Your task to perform on an android device: Search for seafood restaurants on Google Maps Image 0: 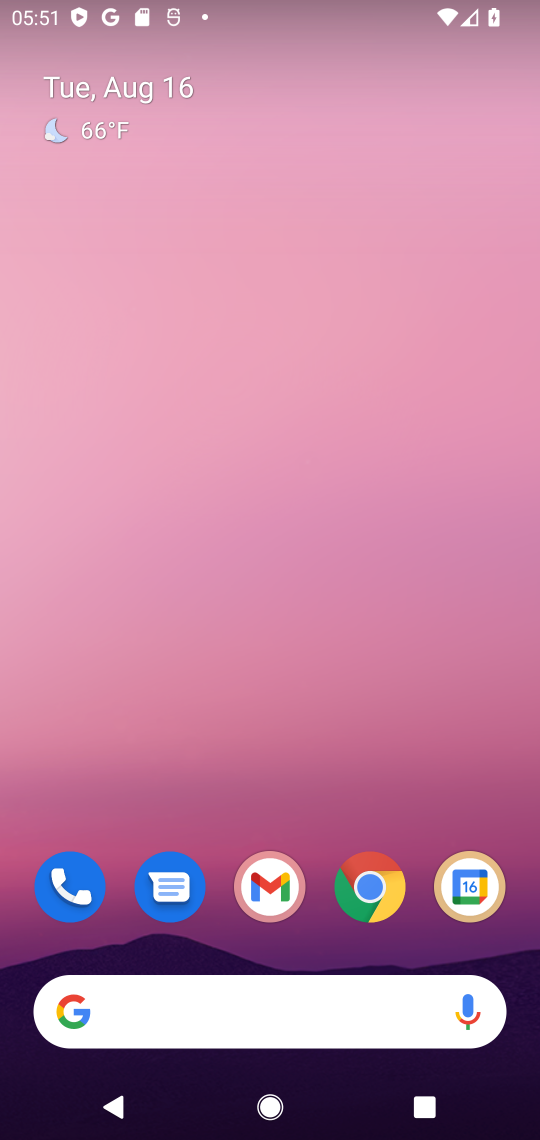
Step 0: drag from (356, 633) to (366, 4)
Your task to perform on an android device: Search for seafood restaurants on Google Maps Image 1: 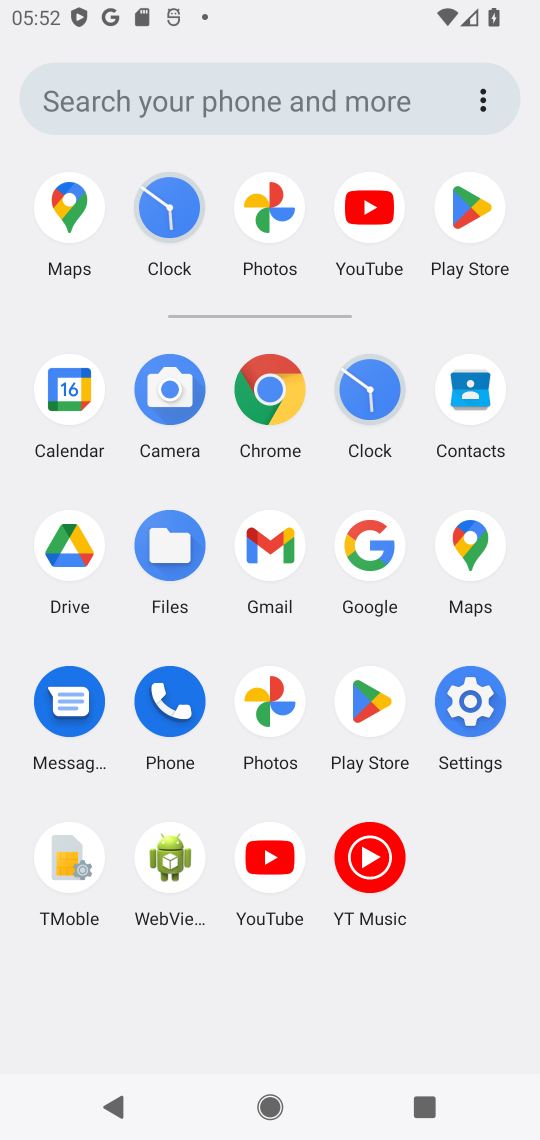
Step 1: click (460, 545)
Your task to perform on an android device: Search for seafood restaurants on Google Maps Image 2: 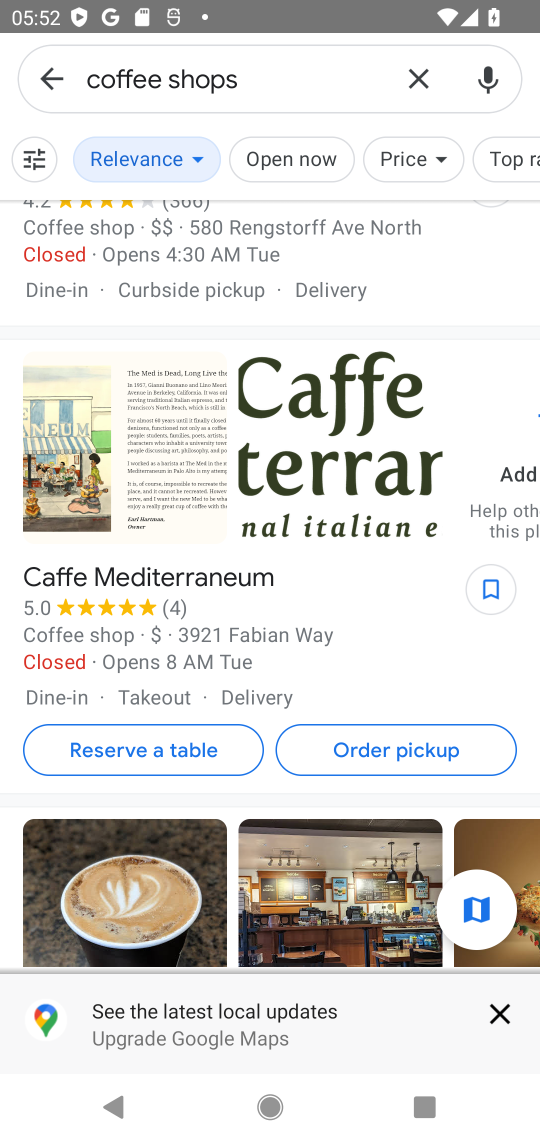
Step 2: click (414, 69)
Your task to perform on an android device: Search for seafood restaurants on Google Maps Image 3: 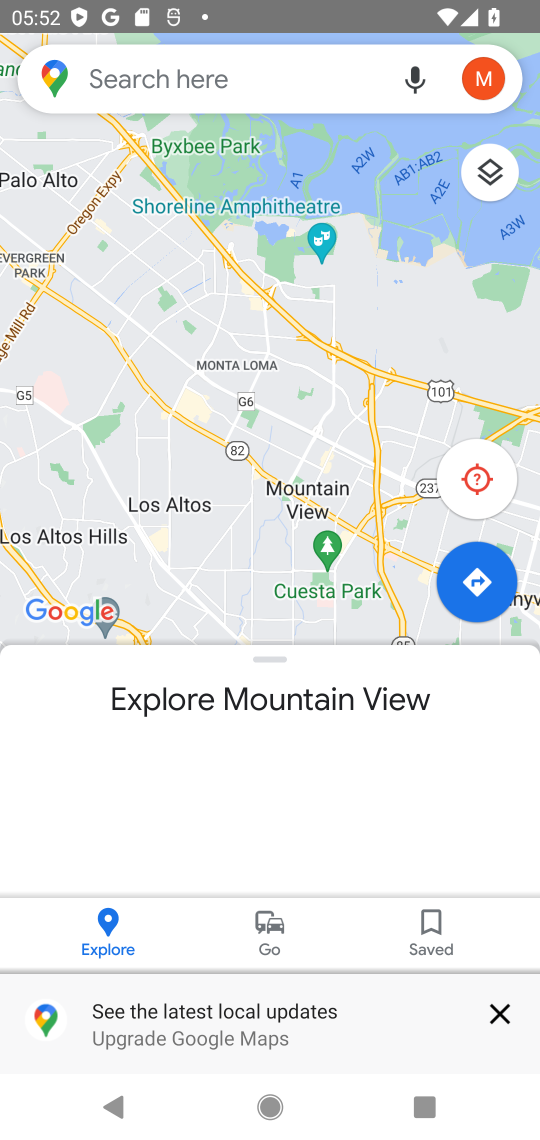
Step 3: click (293, 81)
Your task to perform on an android device: Search for seafood restaurants on Google Maps Image 4: 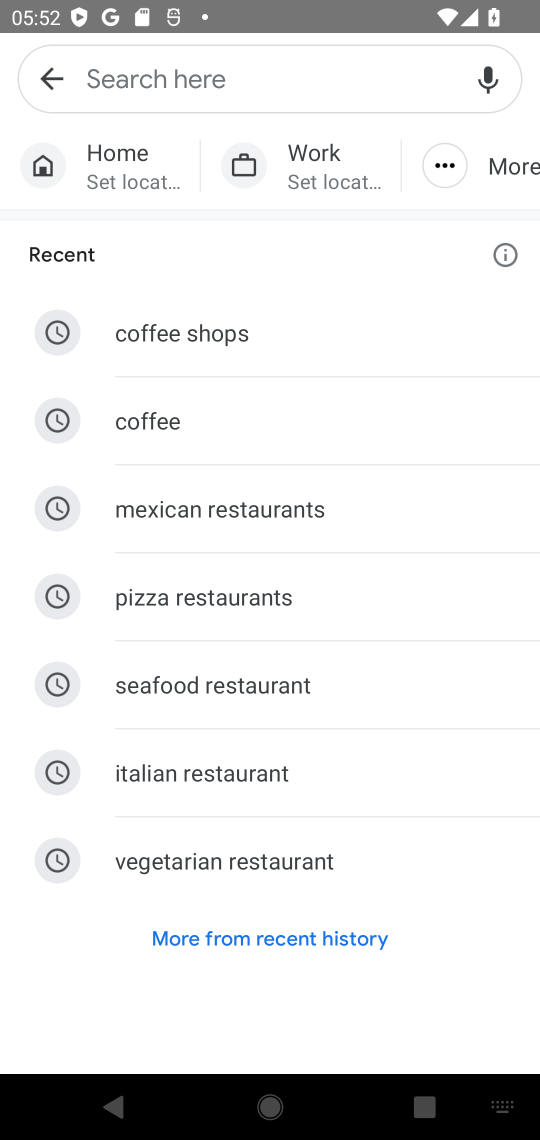
Step 4: type "seafood restaurants"
Your task to perform on an android device: Search for seafood restaurants on Google Maps Image 5: 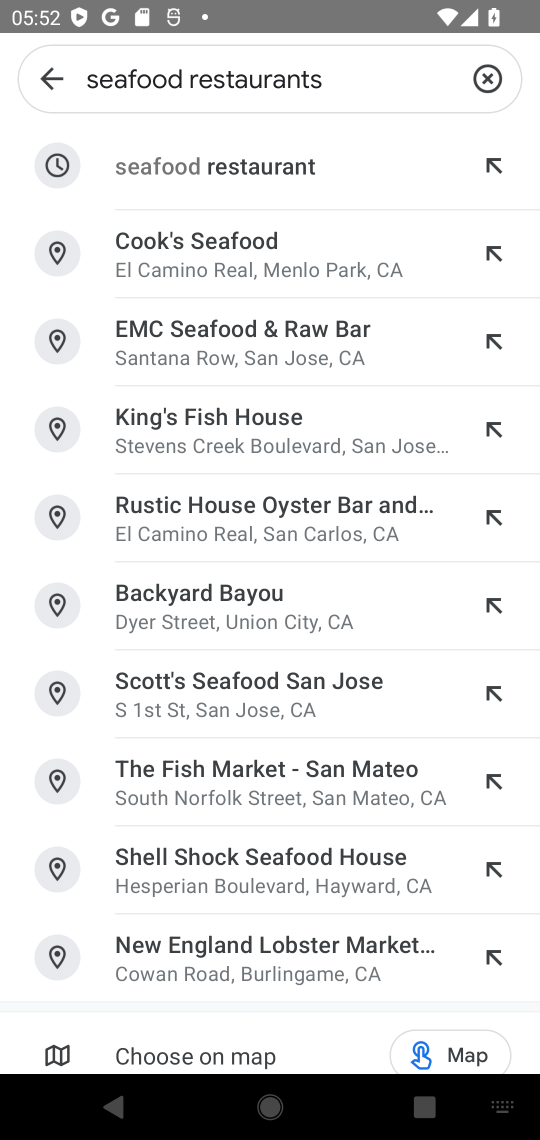
Step 5: press enter
Your task to perform on an android device: Search for seafood restaurants on Google Maps Image 6: 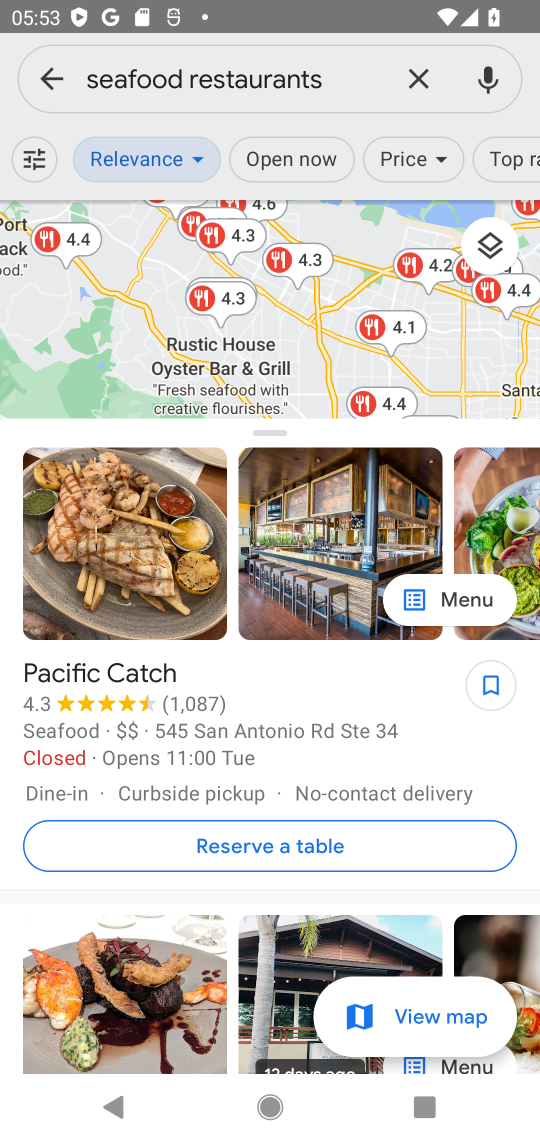
Step 6: task complete